Your task to perform on an android device: Do I have any events tomorrow? Image 0: 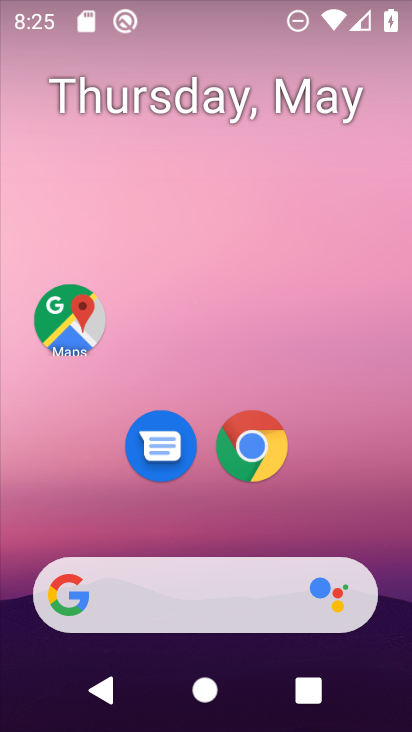
Step 0: drag from (371, 517) to (366, 129)
Your task to perform on an android device: Do I have any events tomorrow? Image 1: 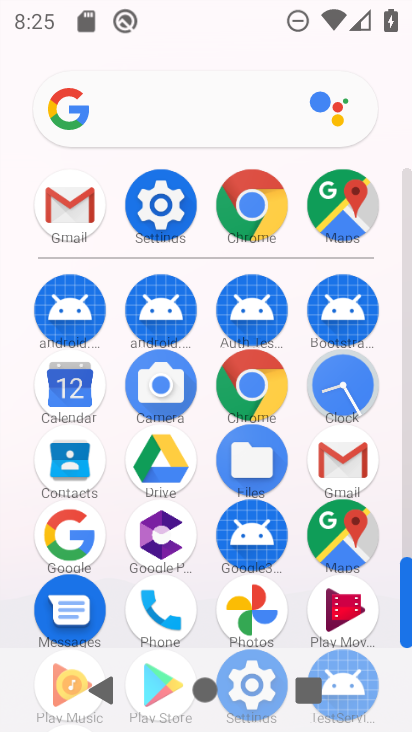
Step 1: click (71, 388)
Your task to perform on an android device: Do I have any events tomorrow? Image 2: 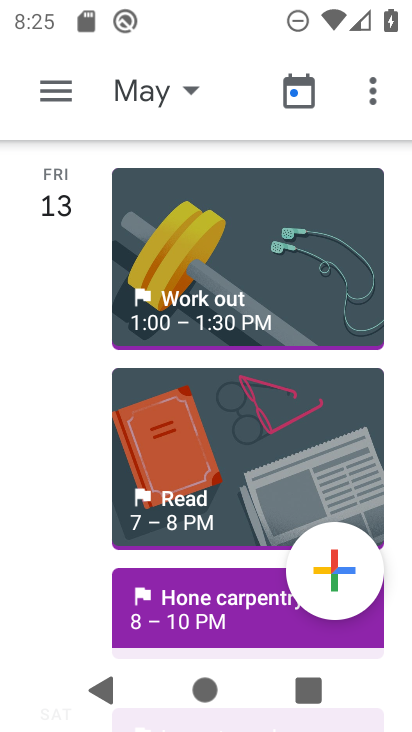
Step 2: task complete